Your task to perform on an android device: toggle notification dots Image 0: 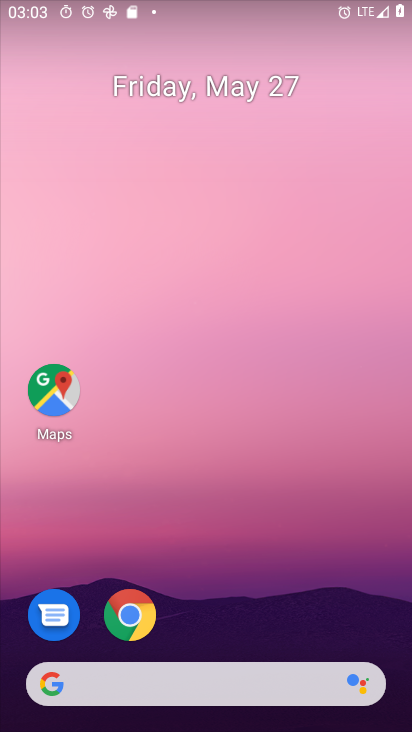
Step 0: drag from (352, 619) to (364, 251)
Your task to perform on an android device: toggle notification dots Image 1: 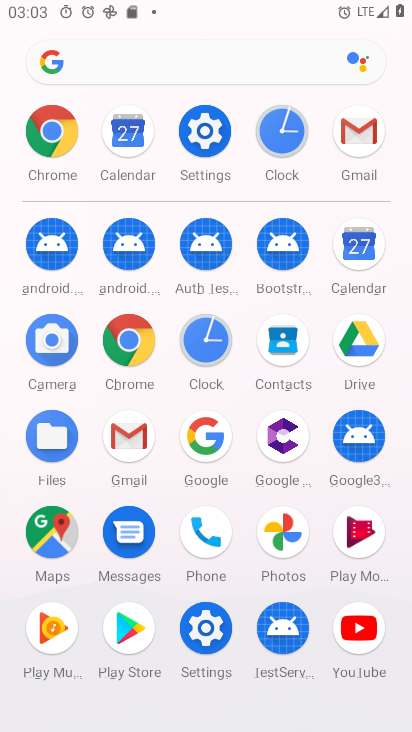
Step 1: click (212, 628)
Your task to perform on an android device: toggle notification dots Image 2: 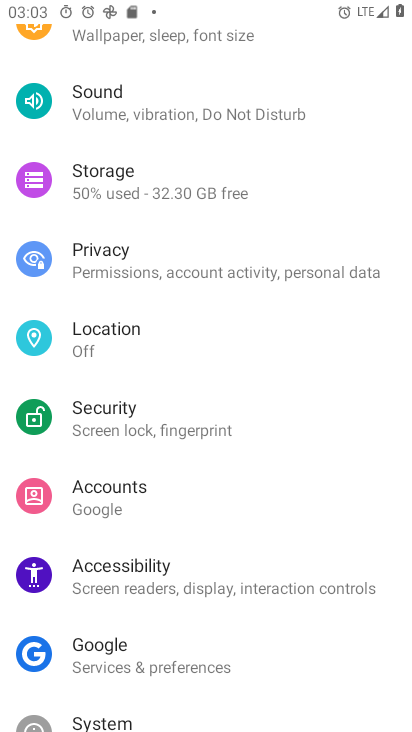
Step 2: drag from (294, 679) to (314, 530)
Your task to perform on an android device: toggle notification dots Image 3: 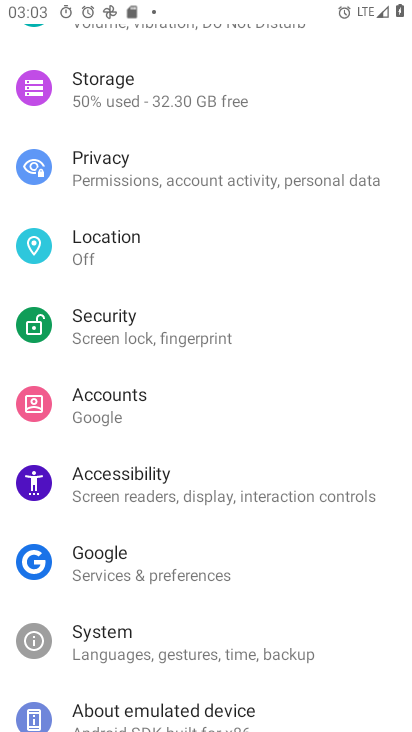
Step 3: drag from (330, 695) to (342, 540)
Your task to perform on an android device: toggle notification dots Image 4: 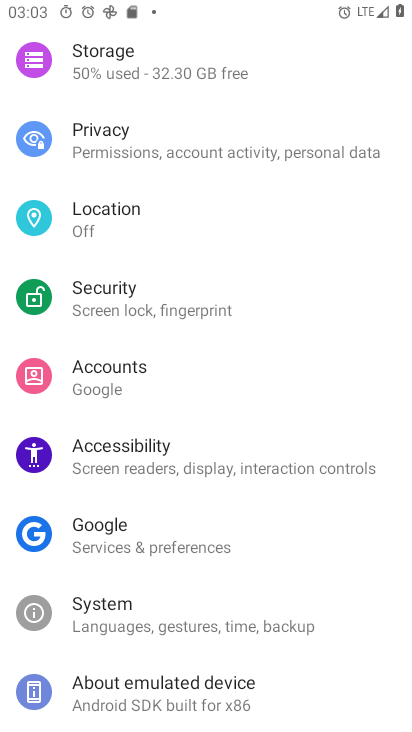
Step 4: drag from (327, 504) to (330, 625)
Your task to perform on an android device: toggle notification dots Image 5: 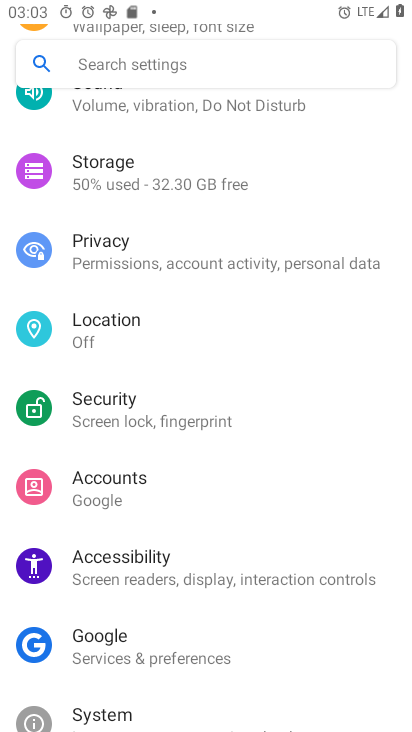
Step 5: drag from (328, 496) to (325, 606)
Your task to perform on an android device: toggle notification dots Image 6: 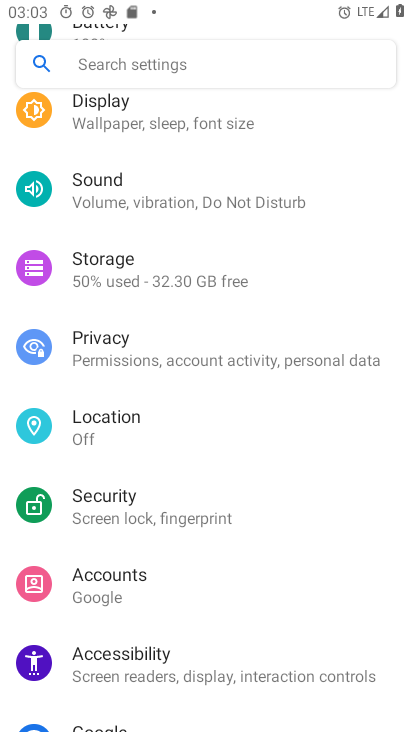
Step 6: drag from (323, 490) to (324, 612)
Your task to perform on an android device: toggle notification dots Image 7: 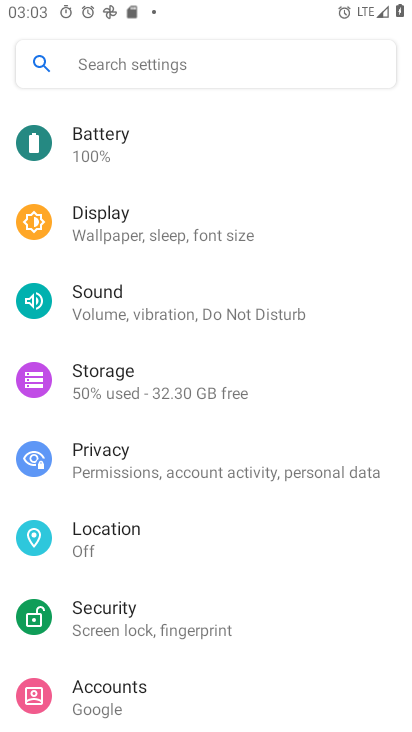
Step 7: drag from (316, 552) to (321, 616)
Your task to perform on an android device: toggle notification dots Image 8: 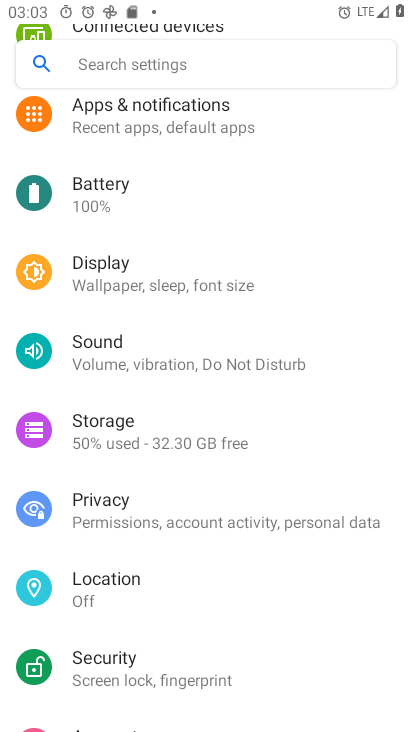
Step 8: drag from (326, 427) to (341, 615)
Your task to perform on an android device: toggle notification dots Image 9: 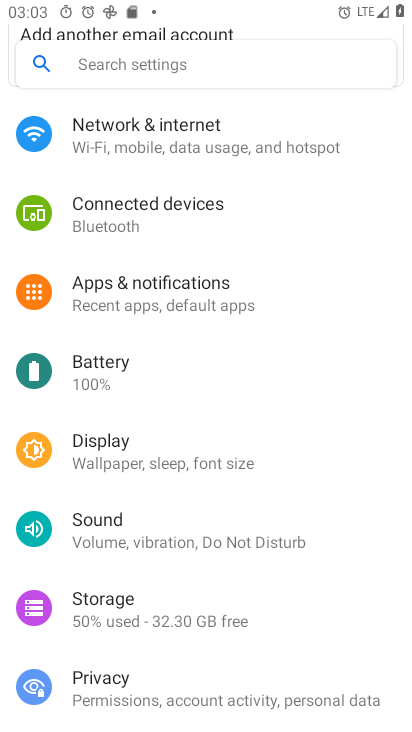
Step 9: drag from (343, 471) to (363, 617)
Your task to perform on an android device: toggle notification dots Image 10: 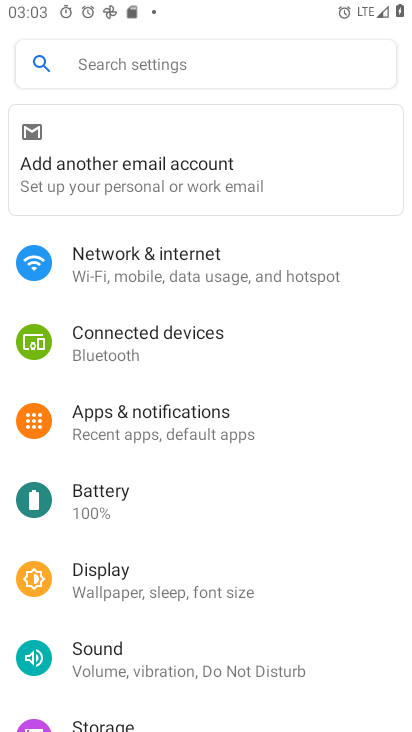
Step 10: drag from (339, 419) to (358, 579)
Your task to perform on an android device: toggle notification dots Image 11: 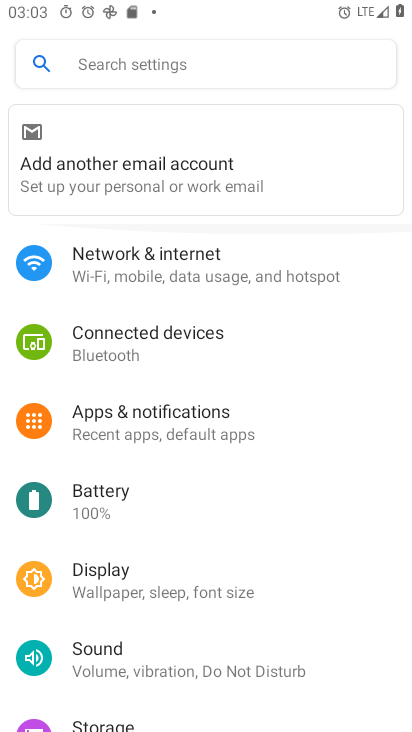
Step 11: click (238, 426)
Your task to perform on an android device: toggle notification dots Image 12: 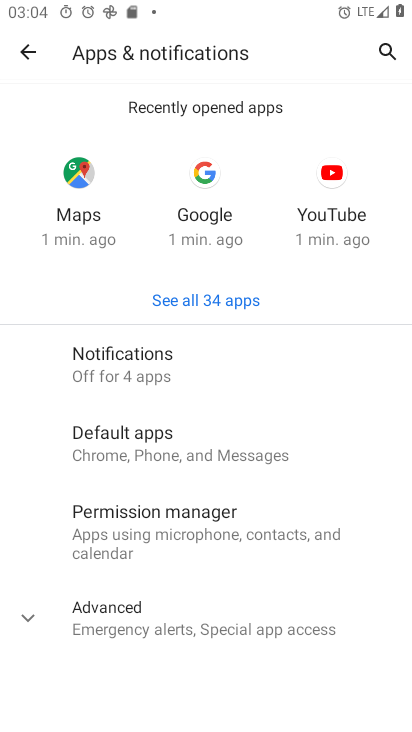
Step 12: click (210, 364)
Your task to perform on an android device: toggle notification dots Image 13: 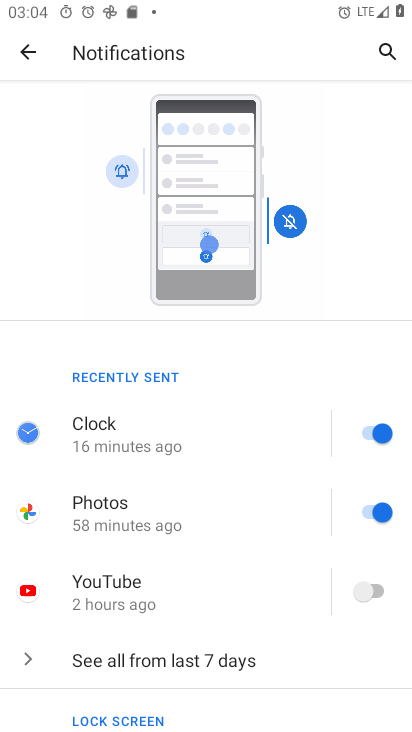
Step 13: drag from (244, 559) to (248, 430)
Your task to perform on an android device: toggle notification dots Image 14: 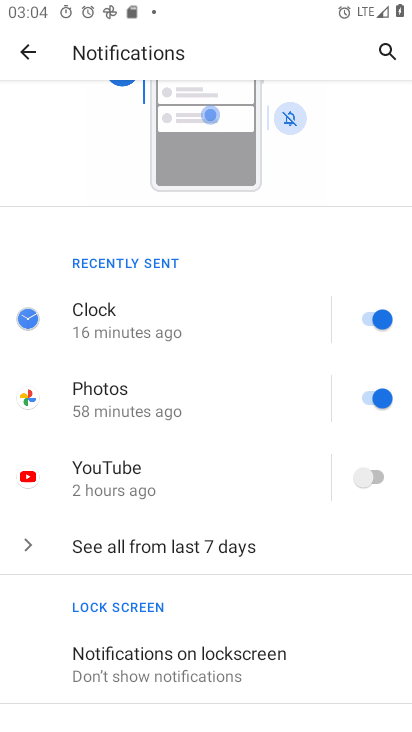
Step 14: drag from (254, 596) to (258, 479)
Your task to perform on an android device: toggle notification dots Image 15: 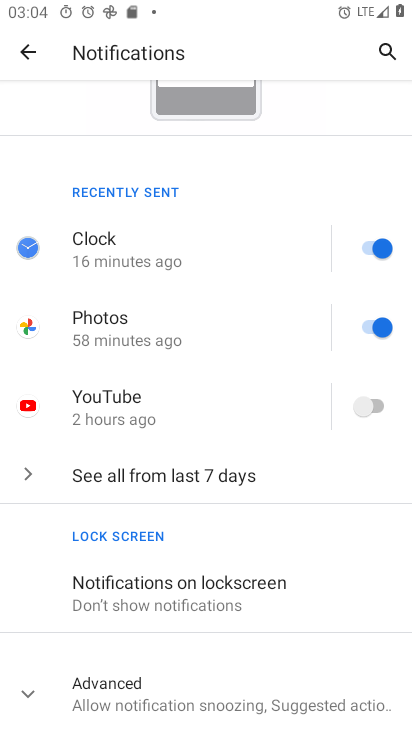
Step 15: click (248, 694)
Your task to perform on an android device: toggle notification dots Image 16: 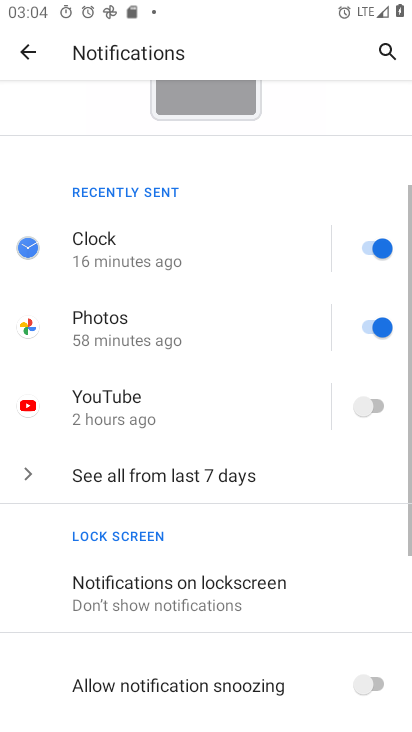
Step 16: drag from (277, 631) to (286, 504)
Your task to perform on an android device: toggle notification dots Image 17: 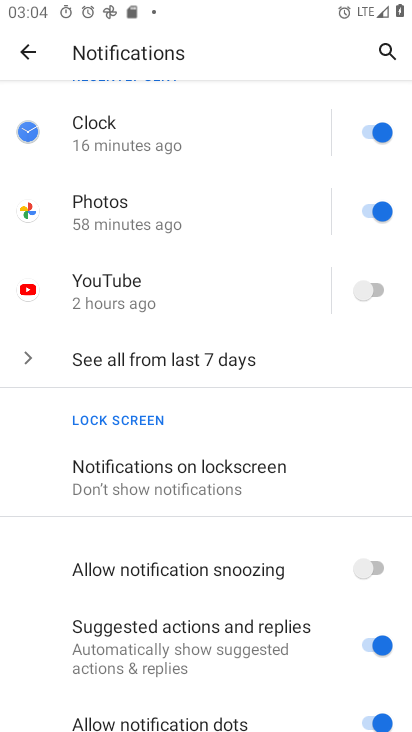
Step 17: drag from (270, 659) to (275, 528)
Your task to perform on an android device: toggle notification dots Image 18: 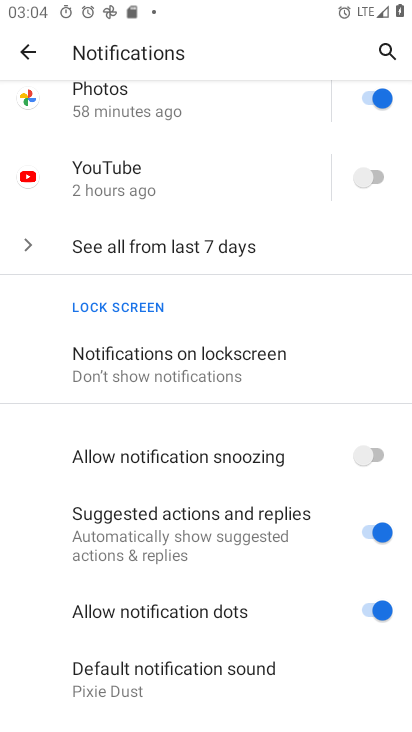
Step 18: click (363, 608)
Your task to perform on an android device: toggle notification dots Image 19: 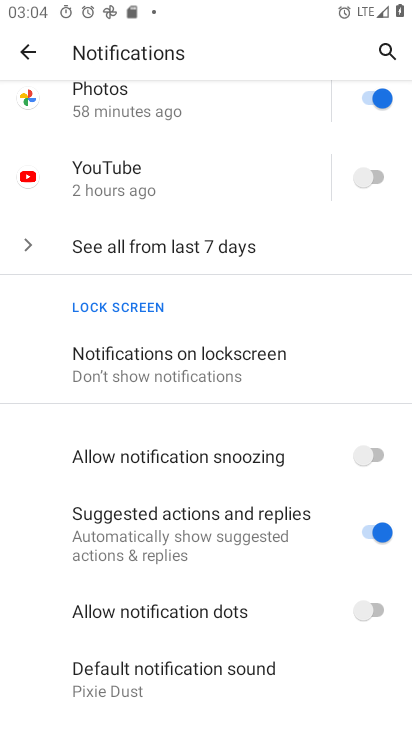
Step 19: task complete